Your task to perform on an android device: Open Android settings Image 0: 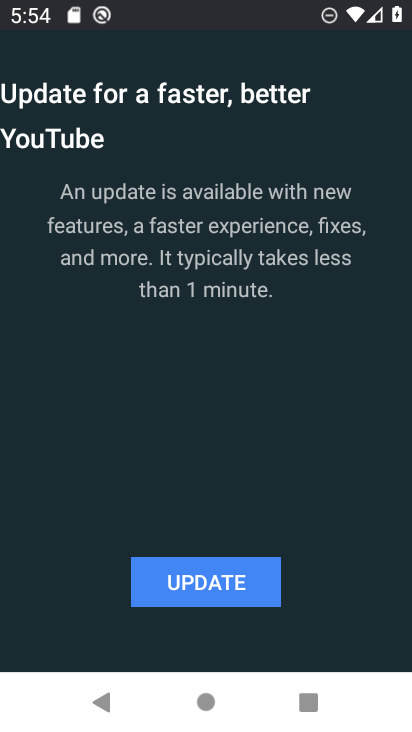
Step 0: press home button
Your task to perform on an android device: Open Android settings Image 1: 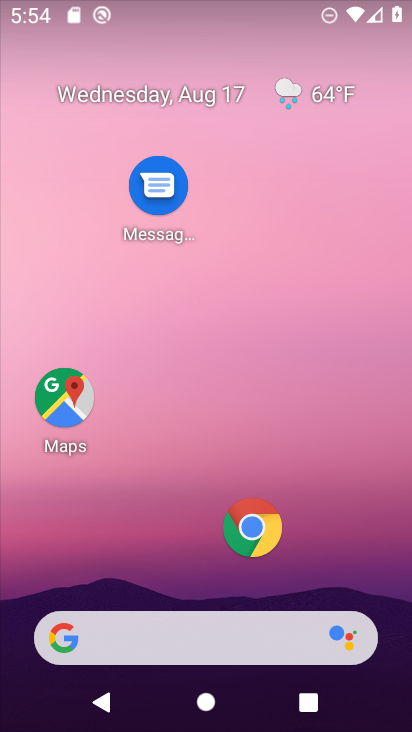
Step 1: drag from (179, 575) to (177, 189)
Your task to perform on an android device: Open Android settings Image 2: 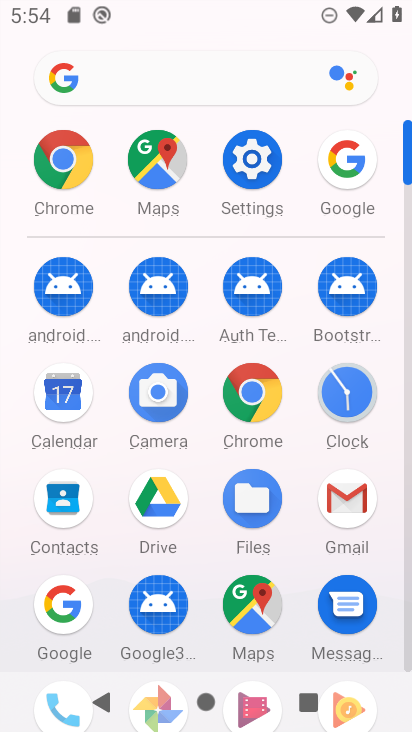
Step 2: click (233, 181)
Your task to perform on an android device: Open Android settings Image 3: 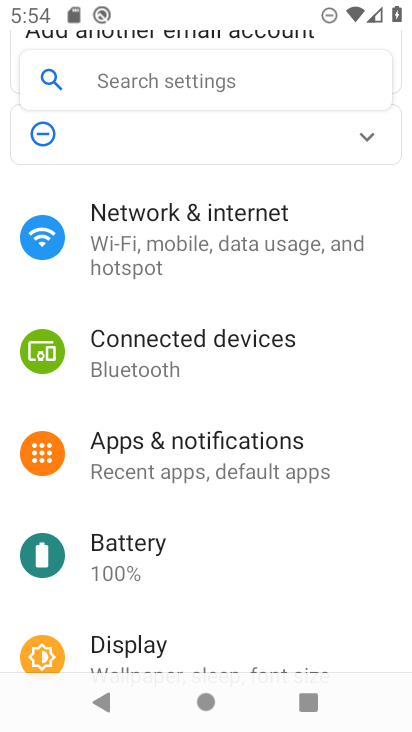
Step 3: task complete